Your task to perform on an android device: open app "ColorNote Notepad Notes" Image 0: 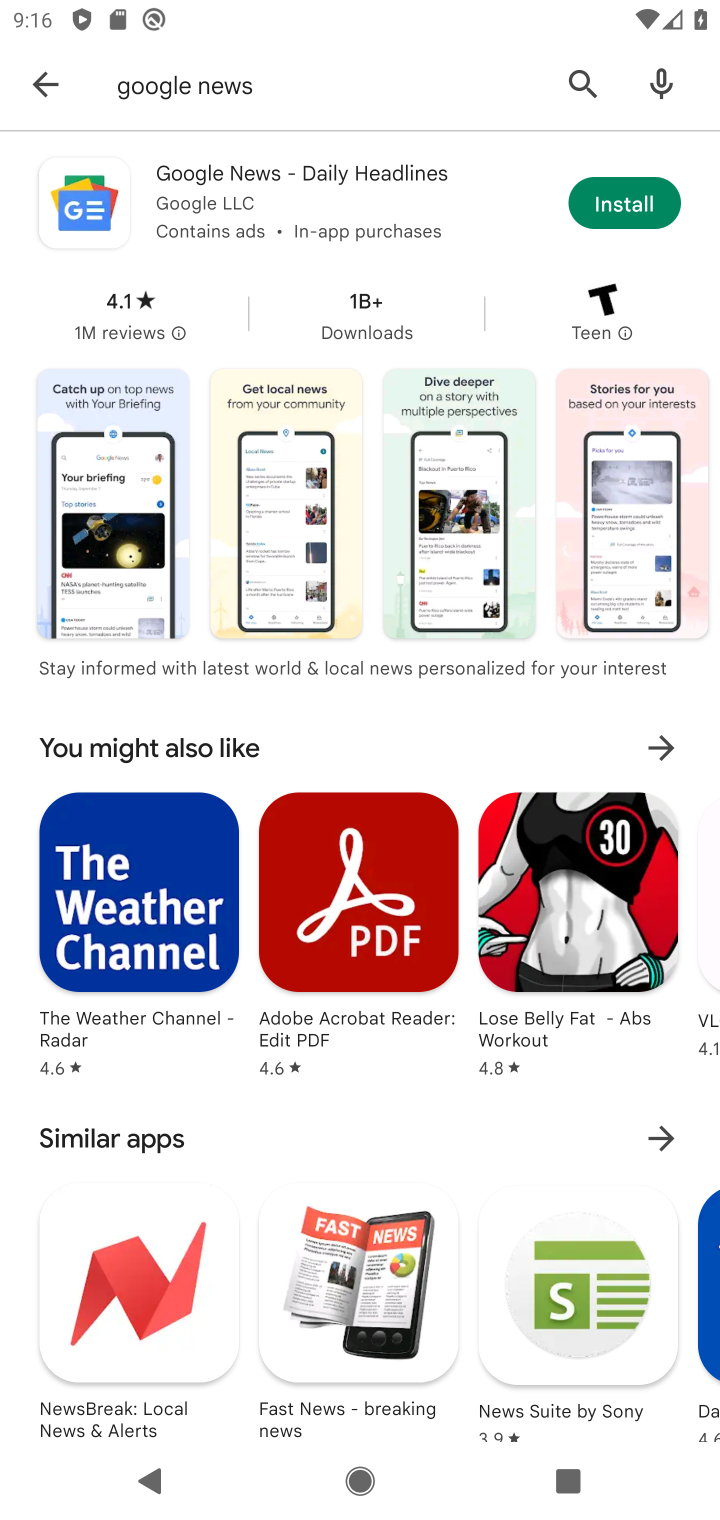
Step 0: click (571, 83)
Your task to perform on an android device: open app "ColorNote Notepad Notes" Image 1: 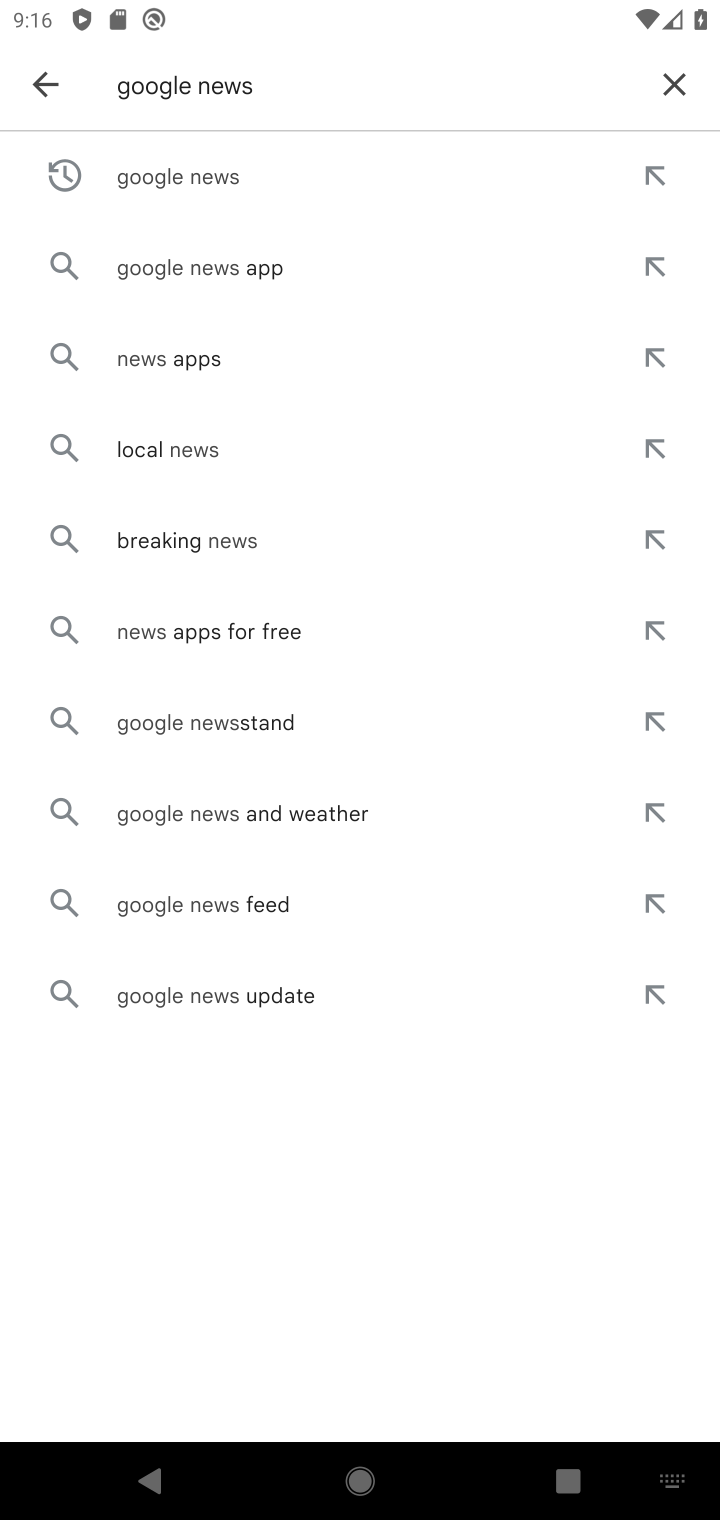
Step 1: click (681, 103)
Your task to perform on an android device: open app "ColorNote Notepad Notes" Image 2: 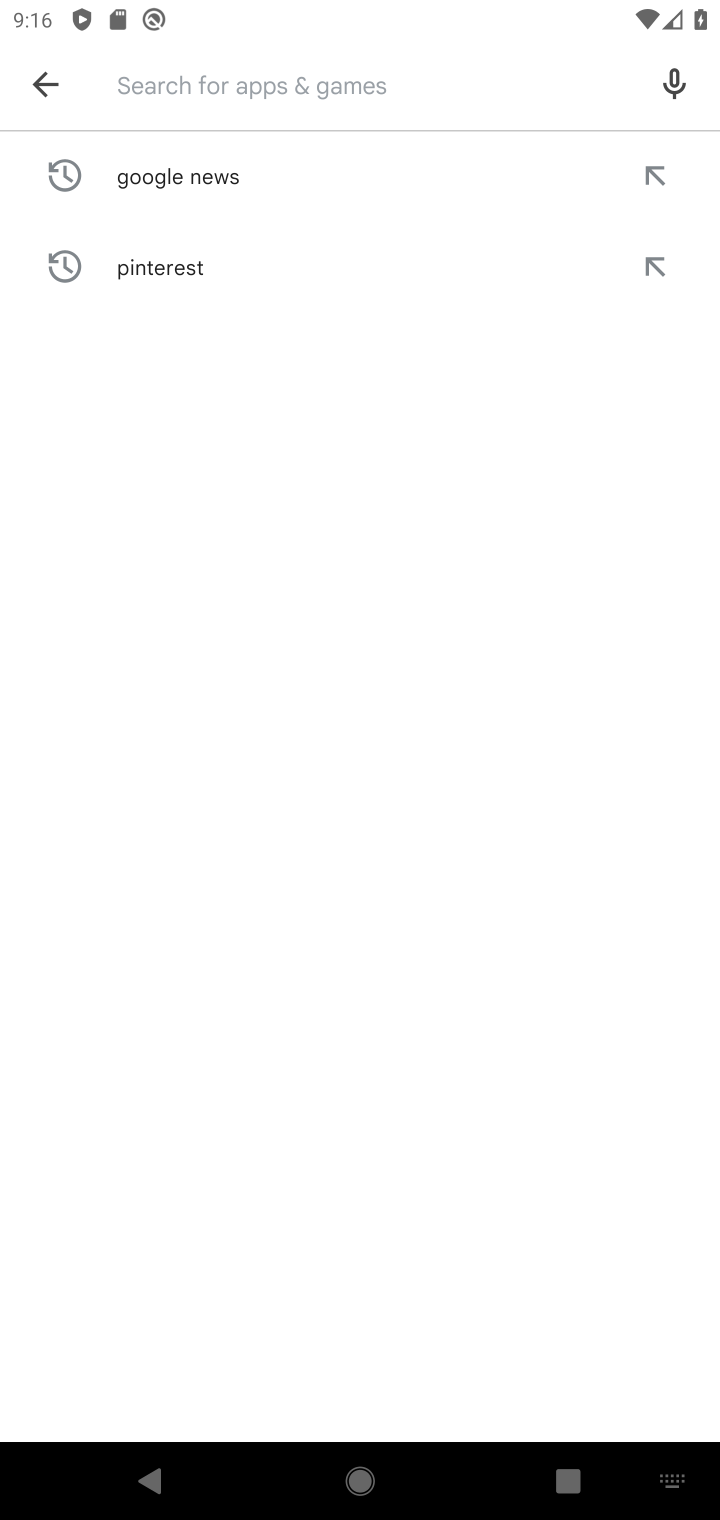
Step 2: type "colornote notepad notes"
Your task to perform on an android device: open app "ColorNote Notepad Notes" Image 3: 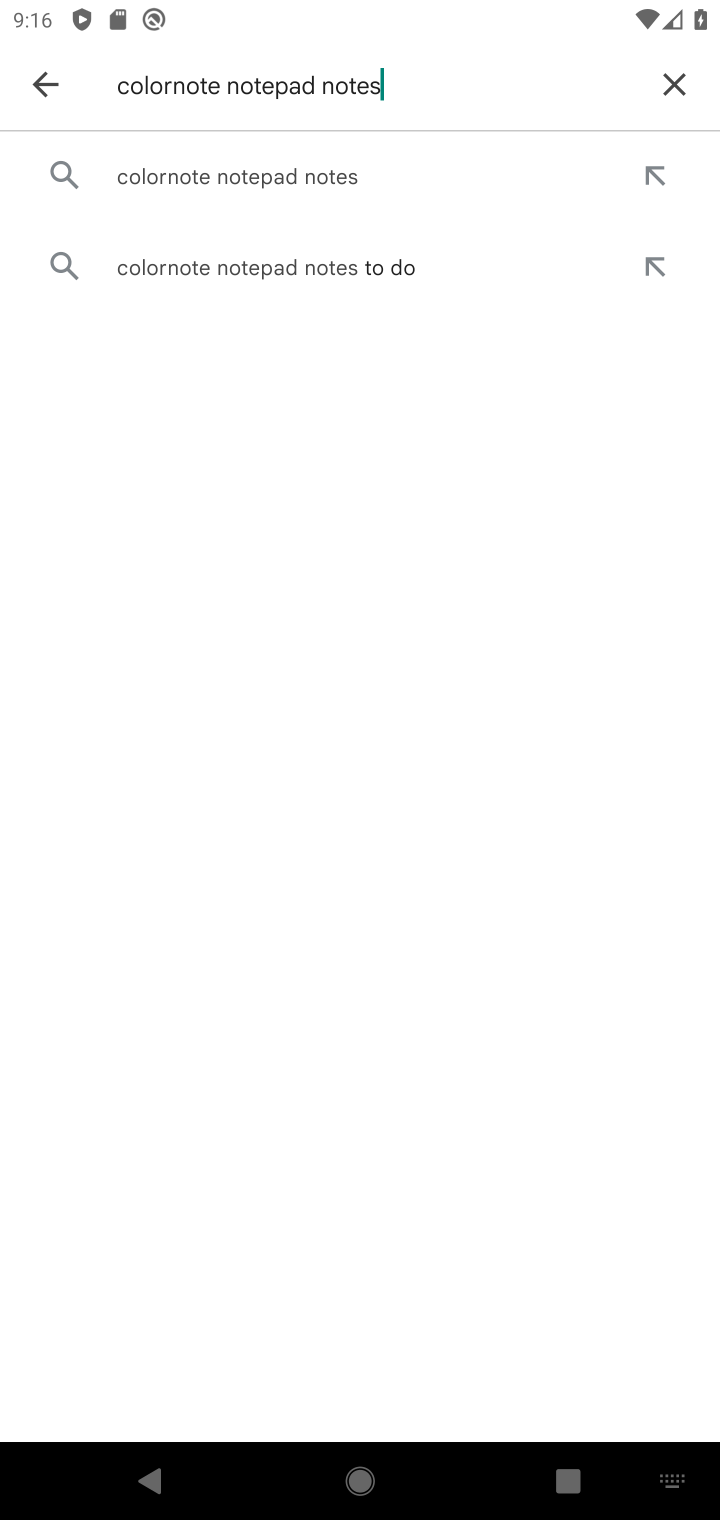
Step 3: click (264, 193)
Your task to perform on an android device: open app "ColorNote Notepad Notes" Image 4: 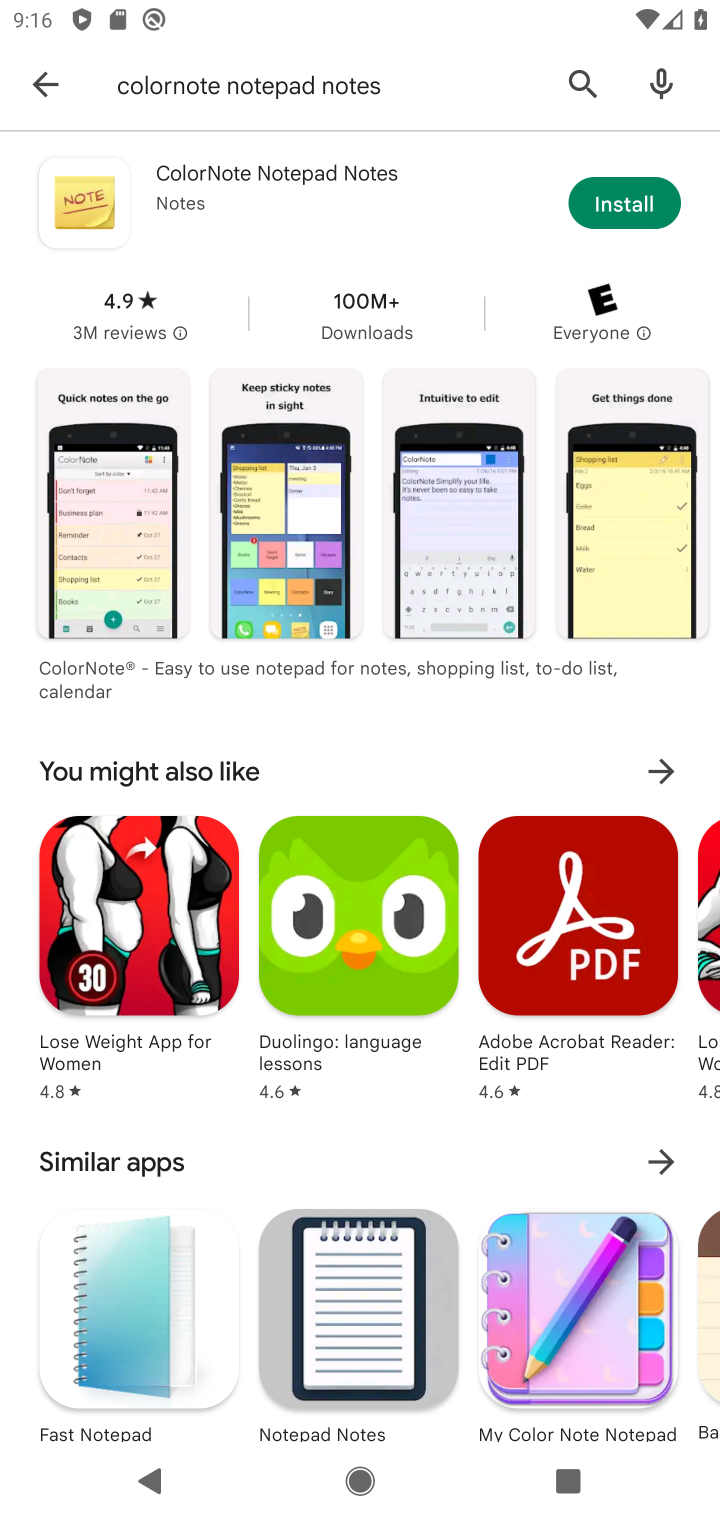
Step 4: task complete